Your task to perform on an android device: open chrome privacy settings Image 0: 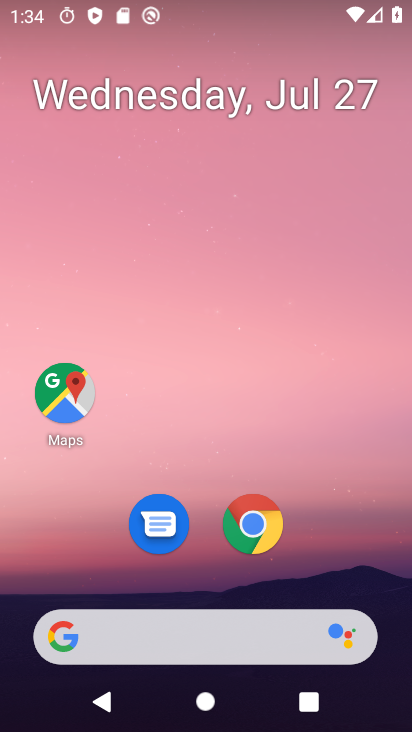
Step 0: click (257, 516)
Your task to perform on an android device: open chrome privacy settings Image 1: 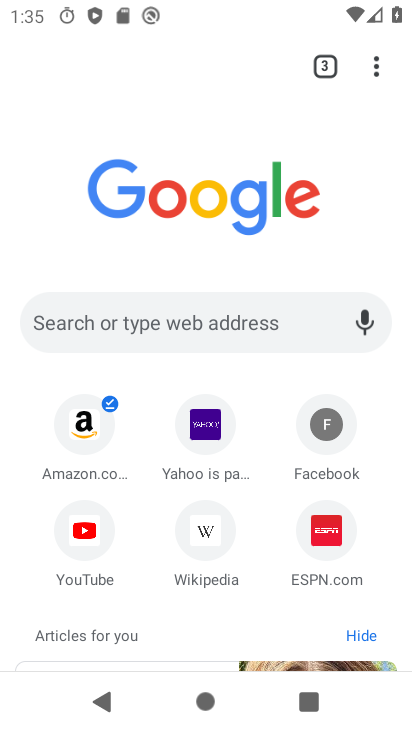
Step 1: click (375, 64)
Your task to perform on an android device: open chrome privacy settings Image 2: 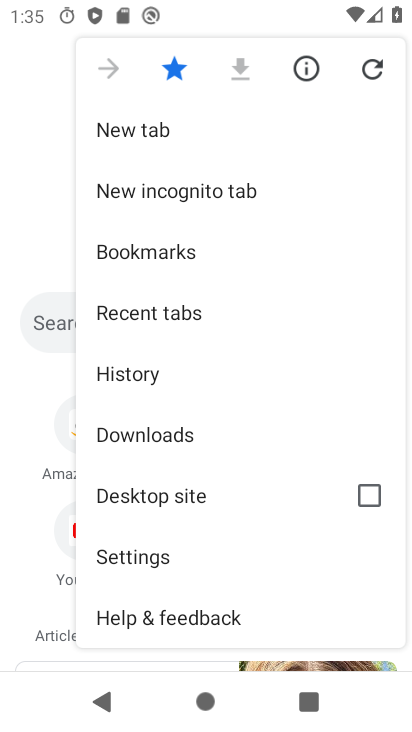
Step 2: click (153, 556)
Your task to perform on an android device: open chrome privacy settings Image 3: 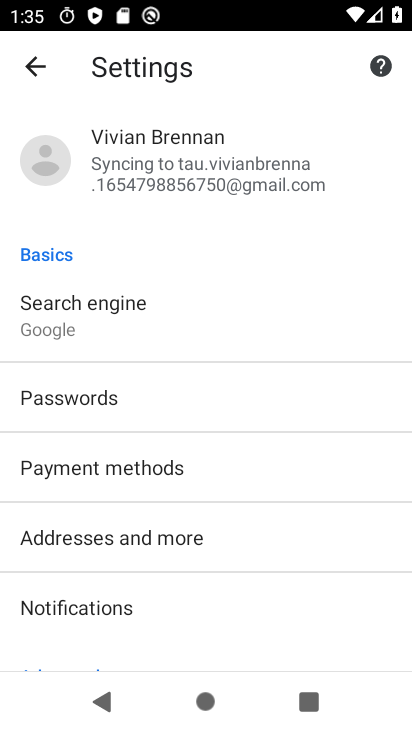
Step 3: drag from (240, 566) to (304, 356)
Your task to perform on an android device: open chrome privacy settings Image 4: 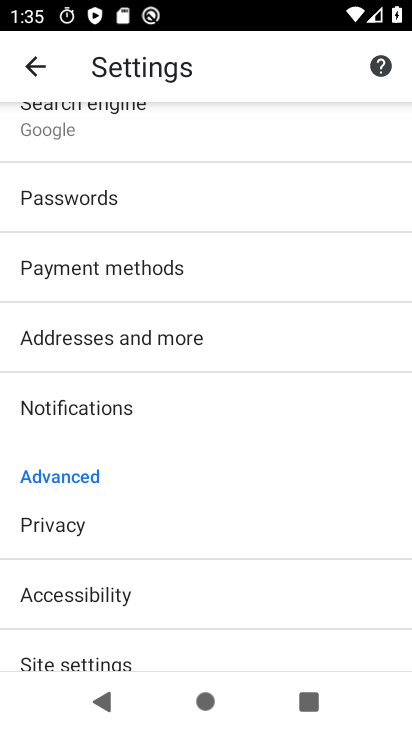
Step 4: click (79, 522)
Your task to perform on an android device: open chrome privacy settings Image 5: 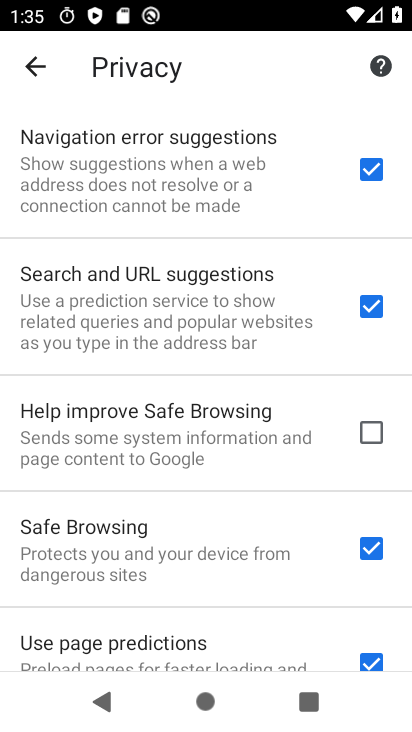
Step 5: task complete